Your task to perform on an android device: Search for vegetarian restaurants on Maps Image 0: 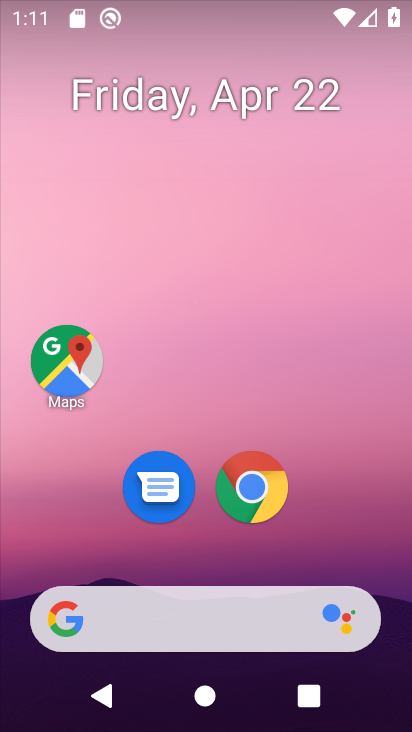
Step 0: click (57, 350)
Your task to perform on an android device: Search for vegetarian restaurants on Maps Image 1: 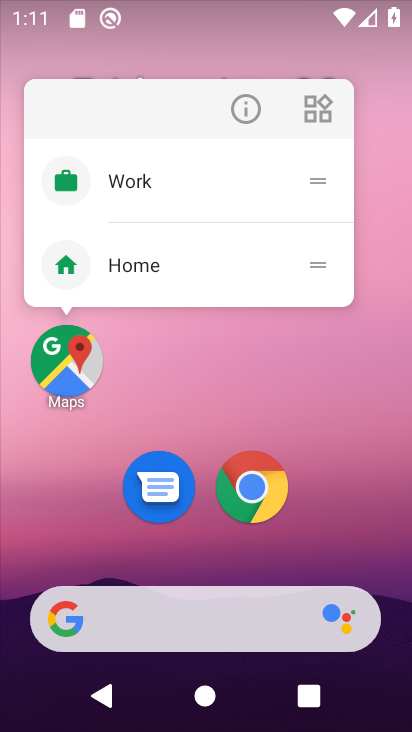
Step 1: click (56, 349)
Your task to perform on an android device: Search for vegetarian restaurants on Maps Image 2: 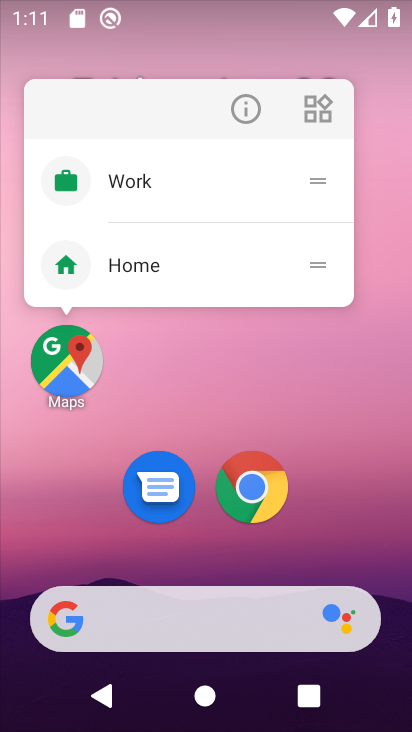
Step 2: click (55, 347)
Your task to perform on an android device: Search for vegetarian restaurants on Maps Image 3: 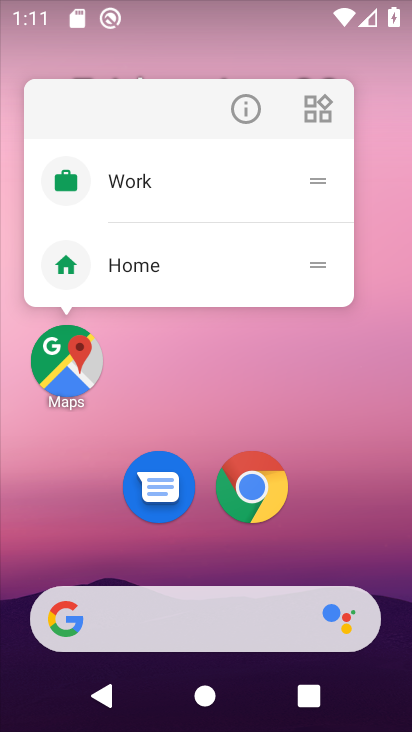
Step 3: click (70, 346)
Your task to perform on an android device: Search for vegetarian restaurants on Maps Image 4: 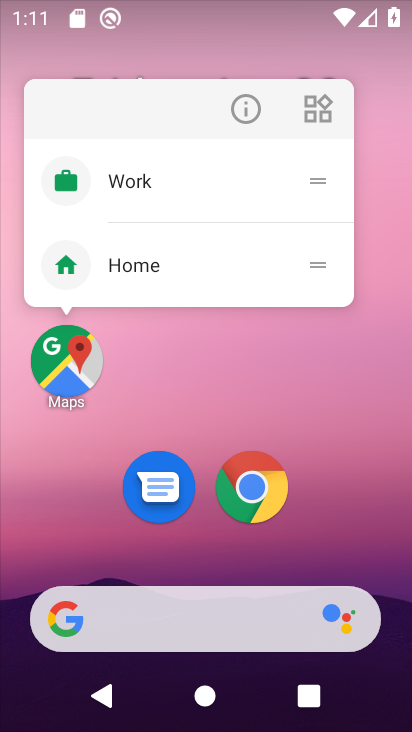
Step 4: click (66, 358)
Your task to perform on an android device: Search for vegetarian restaurants on Maps Image 5: 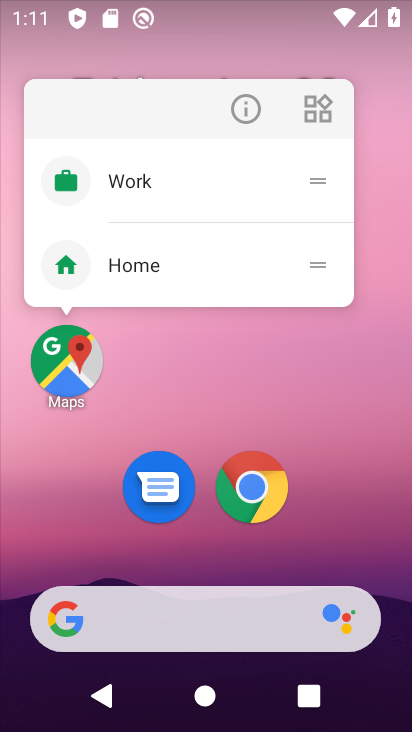
Step 5: click (66, 358)
Your task to perform on an android device: Search for vegetarian restaurants on Maps Image 6: 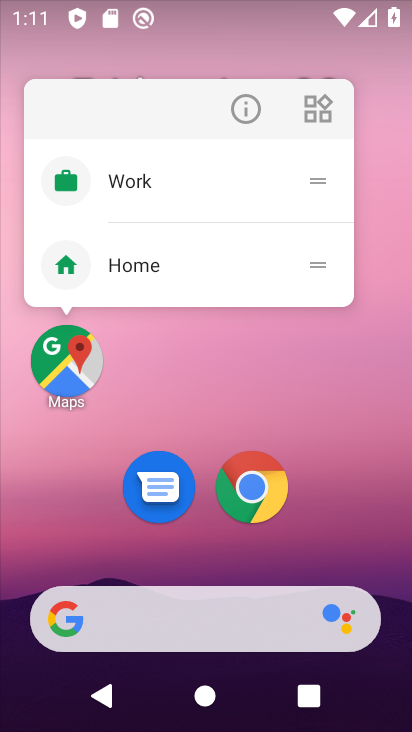
Step 6: click (66, 358)
Your task to perform on an android device: Search for vegetarian restaurants on Maps Image 7: 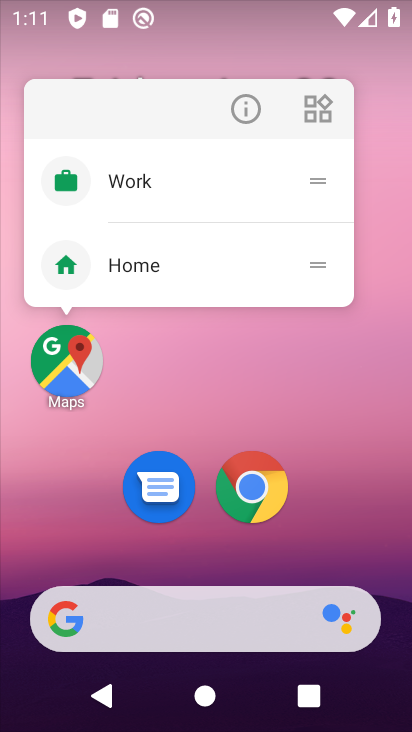
Step 7: click (66, 358)
Your task to perform on an android device: Search for vegetarian restaurants on Maps Image 8: 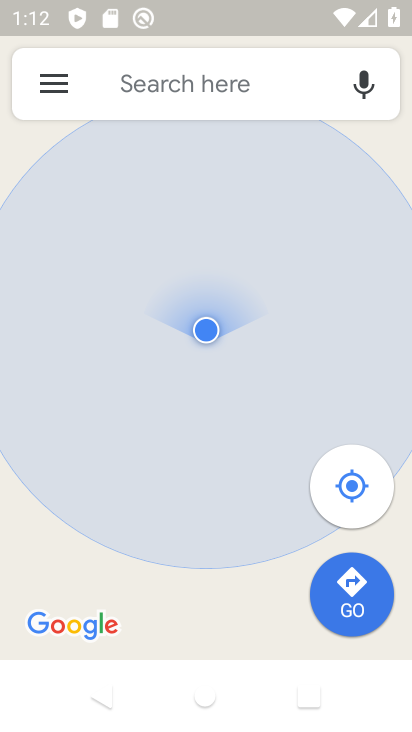
Step 8: click (208, 93)
Your task to perform on an android device: Search for vegetarian restaurants on Maps Image 9: 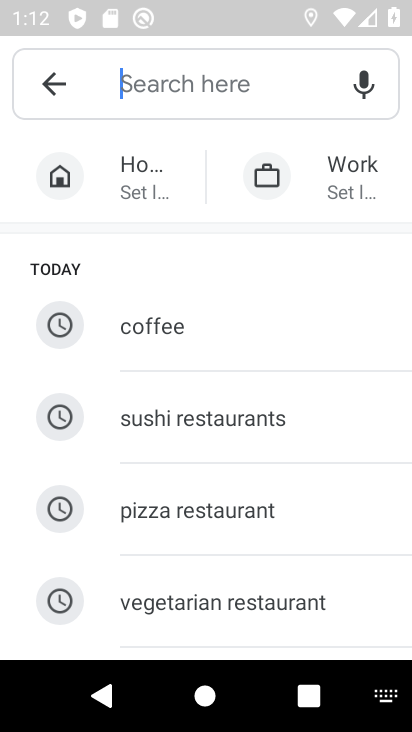
Step 9: type "vegetarin resturents"
Your task to perform on an android device: Search for vegetarian restaurants on Maps Image 10: 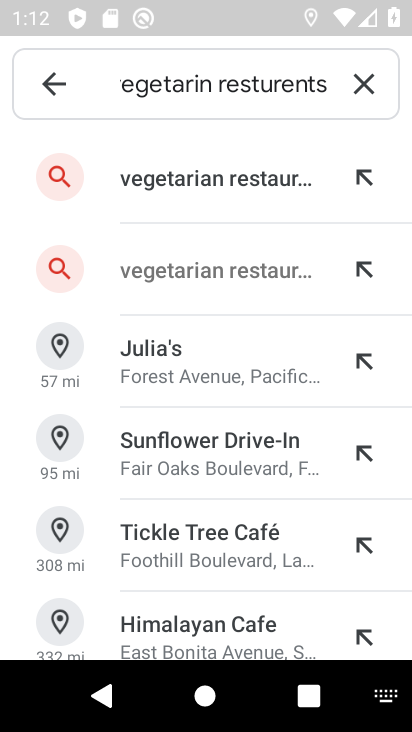
Step 10: click (216, 184)
Your task to perform on an android device: Search for vegetarian restaurants on Maps Image 11: 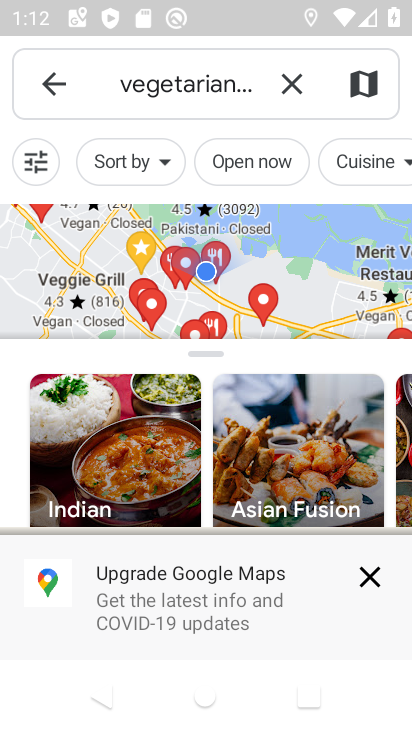
Step 11: task complete